Your task to perform on an android device: allow cookies in the chrome app Image 0: 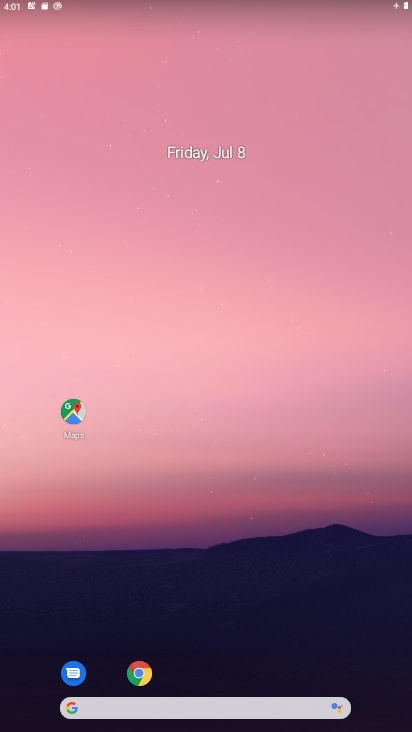
Step 0: click (140, 678)
Your task to perform on an android device: allow cookies in the chrome app Image 1: 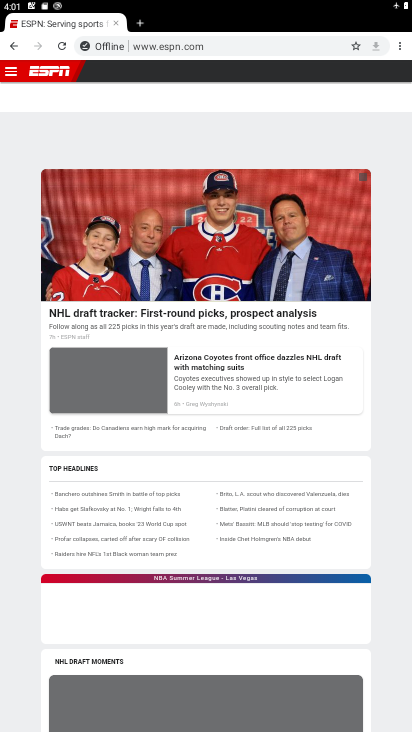
Step 1: drag from (400, 46) to (318, 290)
Your task to perform on an android device: allow cookies in the chrome app Image 2: 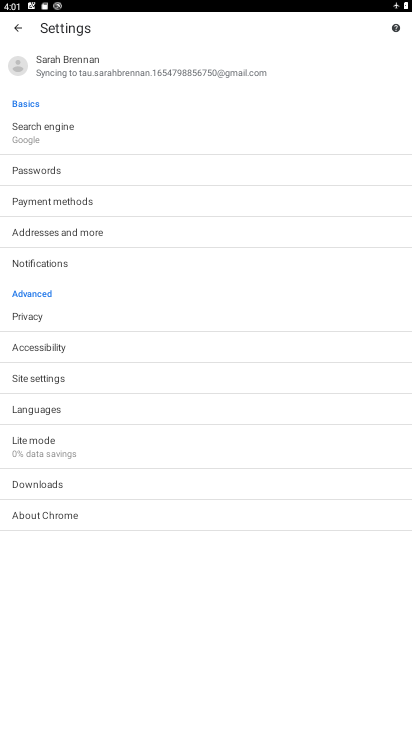
Step 2: click (40, 383)
Your task to perform on an android device: allow cookies in the chrome app Image 3: 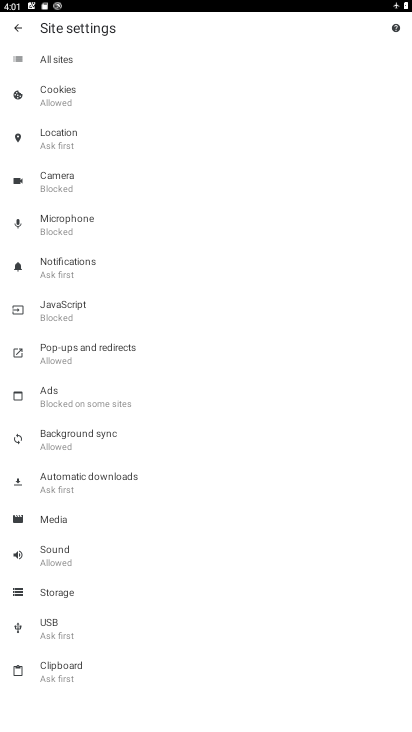
Step 3: click (51, 90)
Your task to perform on an android device: allow cookies in the chrome app Image 4: 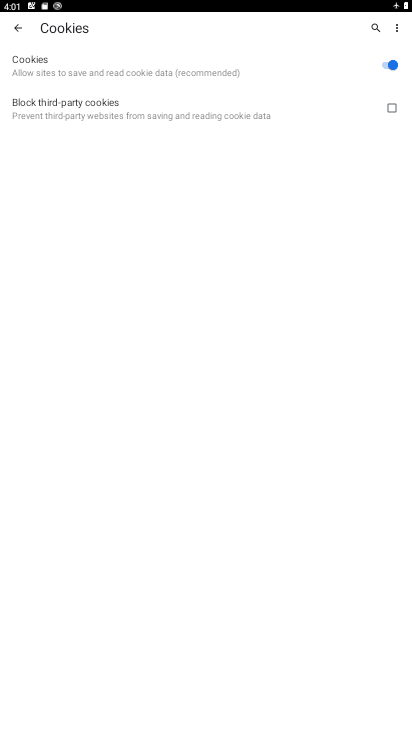
Step 4: task complete